Your task to perform on an android device: Go to Google maps Image 0: 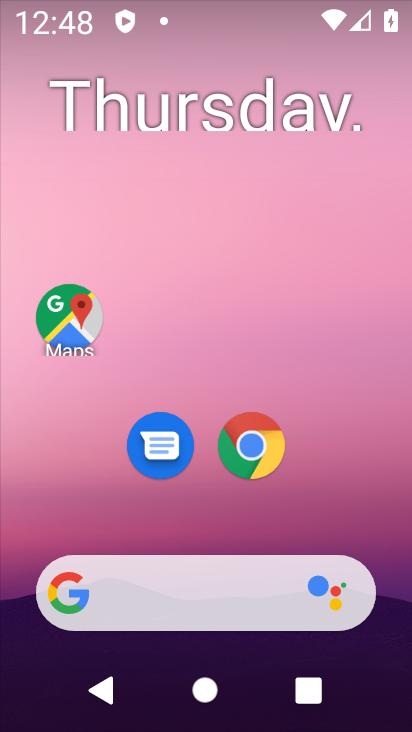
Step 0: click (66, 312)
Your task to perform on an android device: Go to Google maps Image 1: 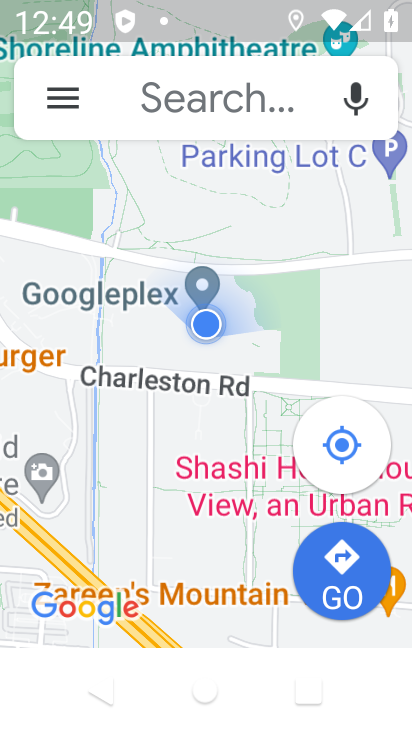
Step 1: task complete